Your task to perform on an android device: Open calendar and show me the third week of next month Image 0: 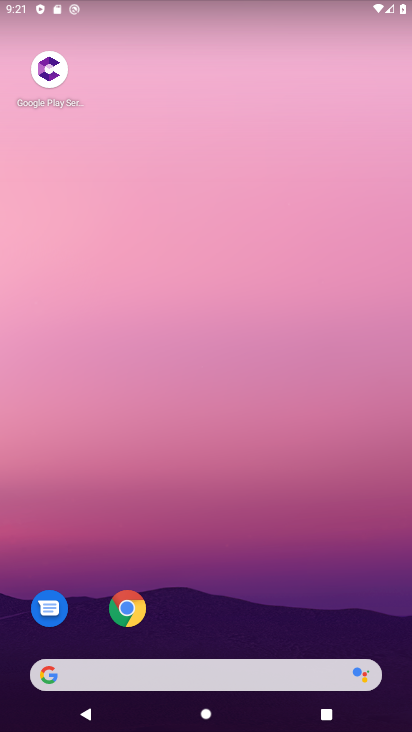
Step 0: drag from (203, 645) to (246, 8)
Your task to perform on an android device: Open calendar and show me the third week of next month Image 1: 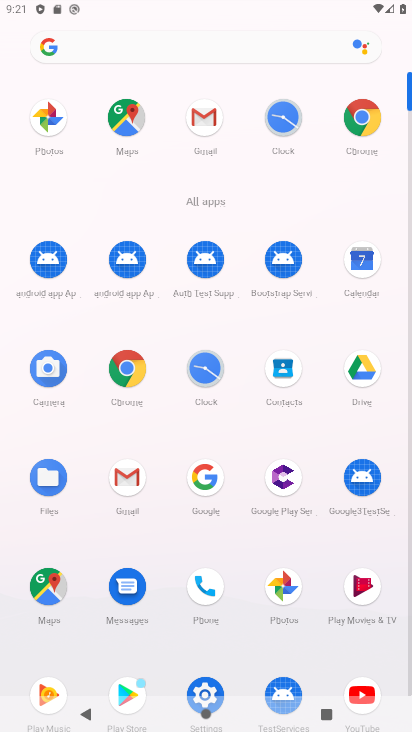
Step 1: click (349, 268)
Your task to perform on an android device: Open calendar and show me the third week of next month Image 2: 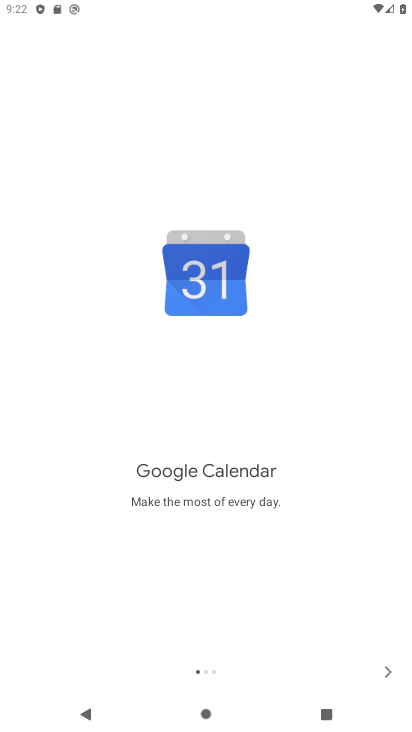
Step 2: click (390, 666)
Your task to perform on an android device: Open calendar and show me the third week of next month Image 3: 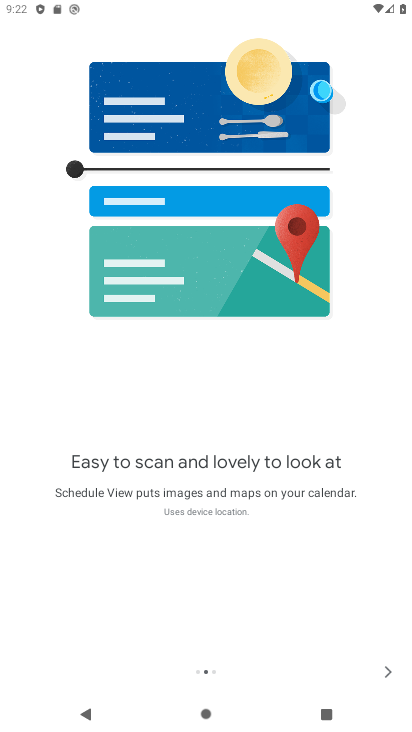
Step 3: click (390, 666)
Your task to perform on an android device: Open calendar and show me the third week of next month Image 4: 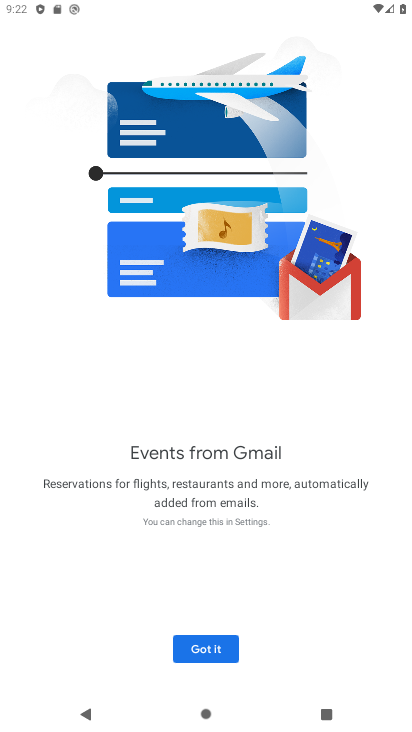
Step 4: click (198, 640)
Your task to perform on an android device: Open calendar and show me the third week of next month Image 5: 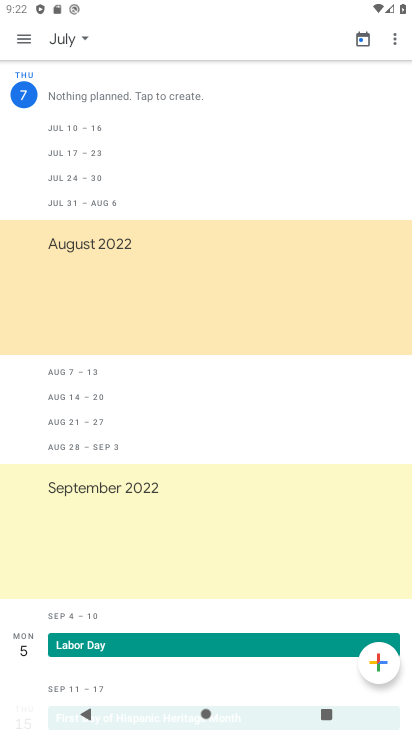
Step 5: click (26, 34)
Your task to perform on an android device: Open calendar and show me the third week of next month Image 6: 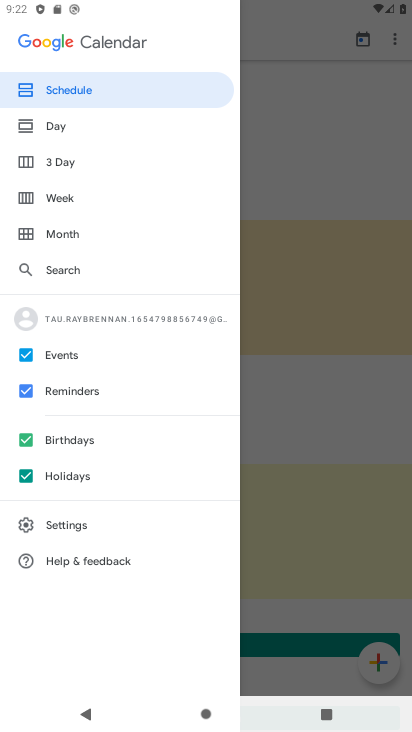
Step 6: click (62, 194)
Your task to perform on an android device: Open calendar and show me the third week of next month Image 7: 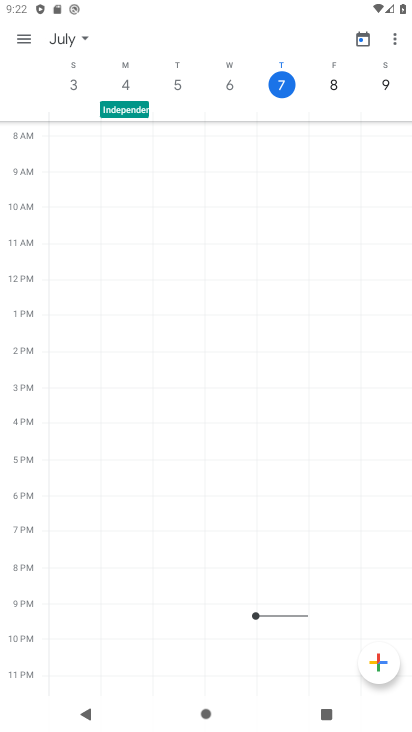
Step 7: task complete